Your task to perform on an android device: Empty the shopping cart on newegg. Search for usb-a to usb-b on newegg, select the first entry, and add it to the cart. Image 0: 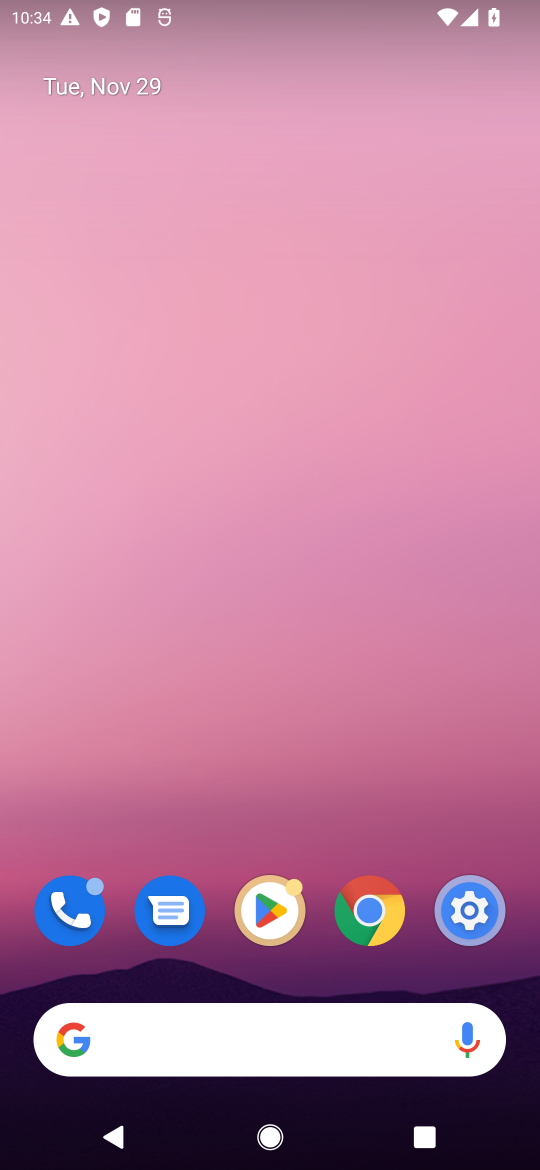
Step 0: click (364, 917)
Your task to perform on an android device: Empty the shopping cart on newegg. Search for usb-a to usb-b on newegg, select the first entry, and add it to the cart. Image 1: 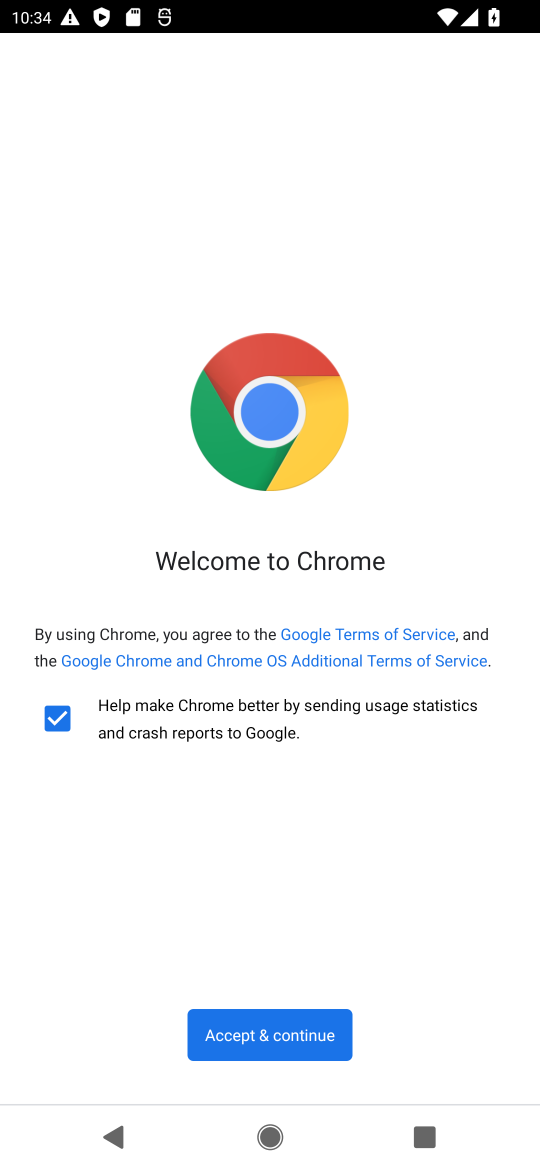
Step 1: click (265, 1041)
Your task to perform on an android device: Empty the shopping cart on newegg. Search for usb-a to usb-b on newegg, select the first entry, and add it to the cart. Image 2: 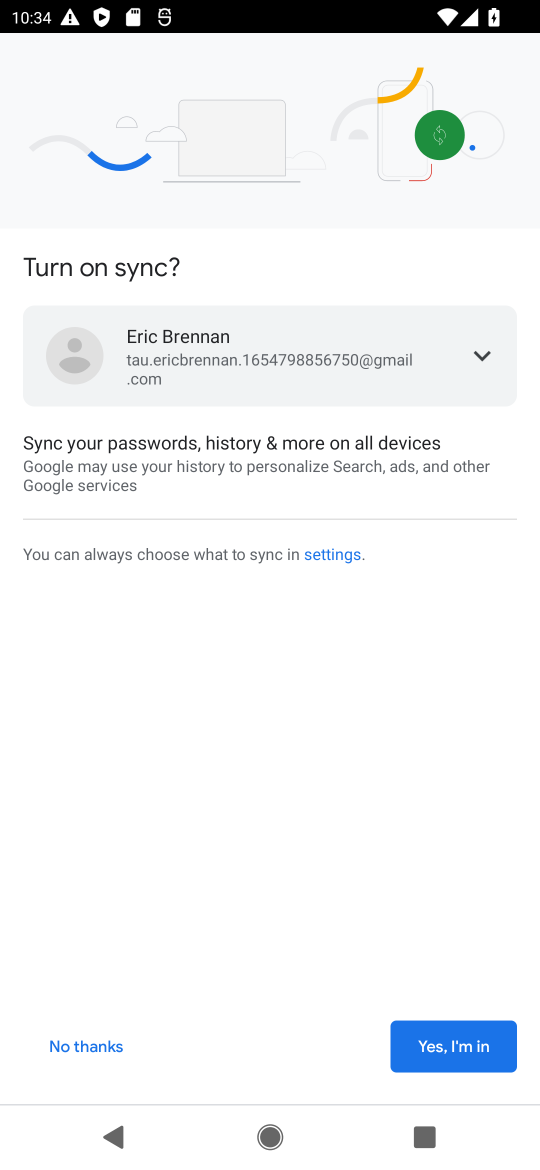
Step 2: click (61, 1049)
Your task to perform on an android device: Empty the shopping cart on newegg. Search for usb-a to usb-b on newegg, select the first entry, and add it to the cart. Image 3: 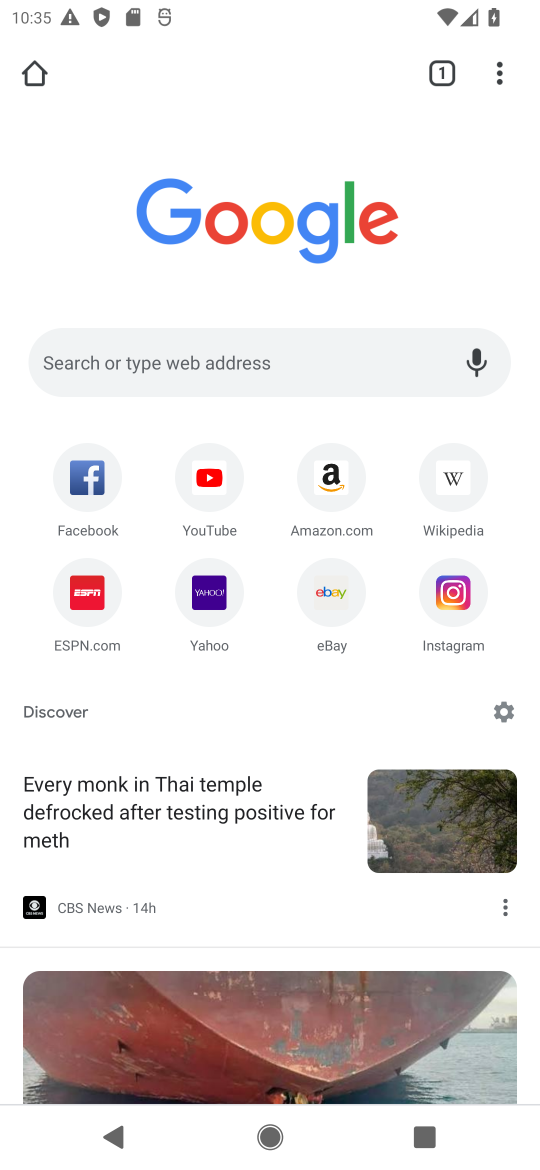
Step 3: click (217, 361)
Your task to perform on an android device: Empty the shopping cart on newegg. Search for usb-a to usb-b on newegg, select the first entry, and add it to the cart. Image 4: 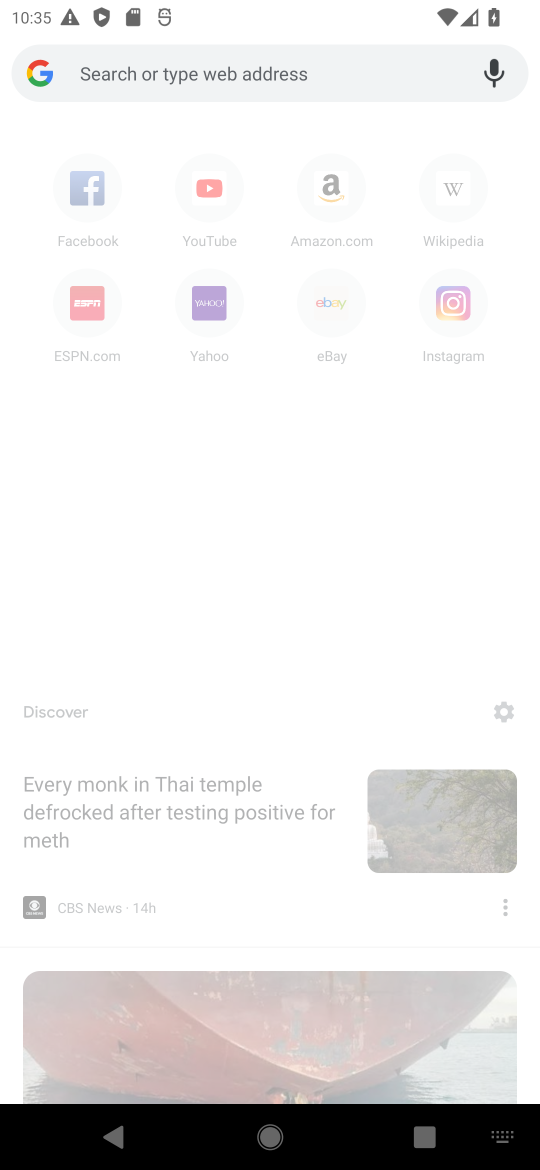
Step 4: type "newegg.com"
Your task to perform on an android device: Empty the shopping cart on newegg. Search for usb-a to usb-b on newegg, select the first entry, and add it to the cart. Image 5: 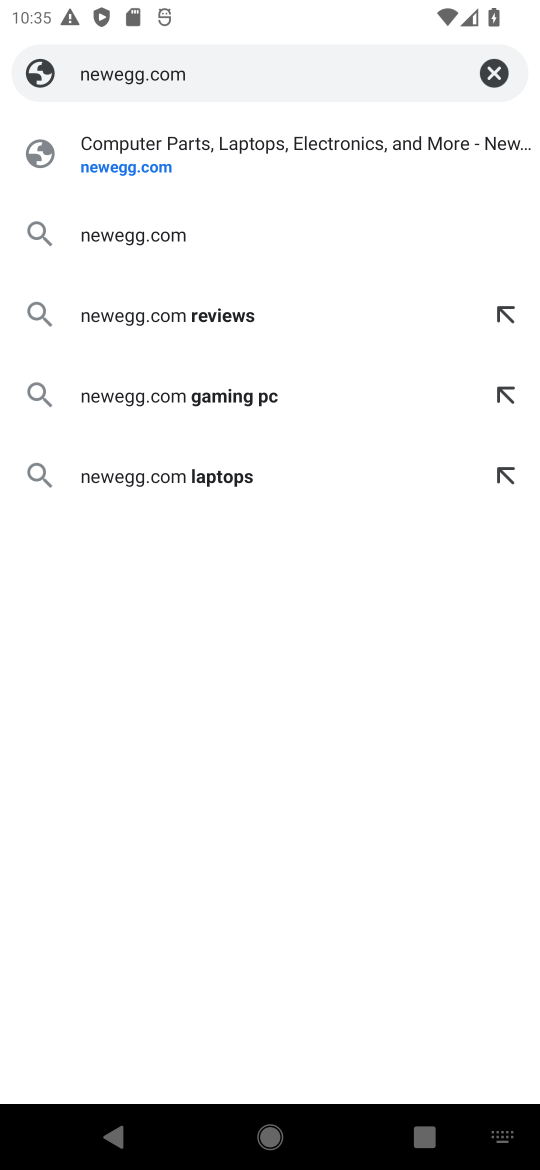
Step 5: click (131, 171)
Your task to perform on an android device: Empty the shopping cart on newegg. Search for usb-a to usb-b on newegg, select the first entry, and add it to the cart. Image 6: 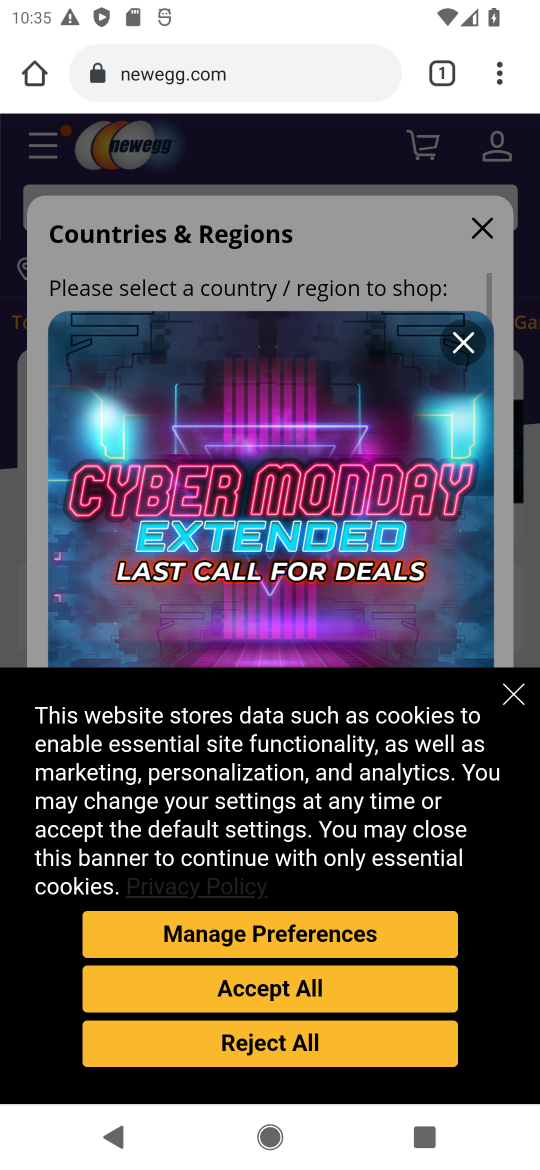
Step 6: click (512, 693)
Your task to perform on an android device: Empty the shopping cart on newegg. Search for usb-a to usb-b on newegg, select the first entry, and add it to the cart. Image 7: 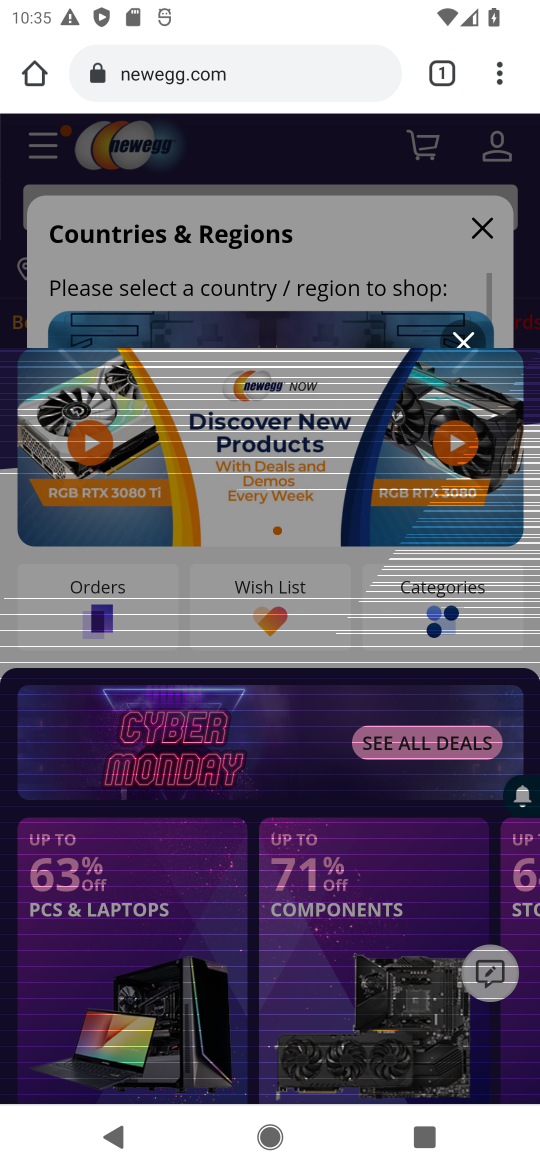
Step 7: click (460, 344)
Your task to perform on an android device: Empty the shopping cart on newegg. Search for usb-a to usb-b on newegg, select the first entry, and add it to the cart. Image 8: 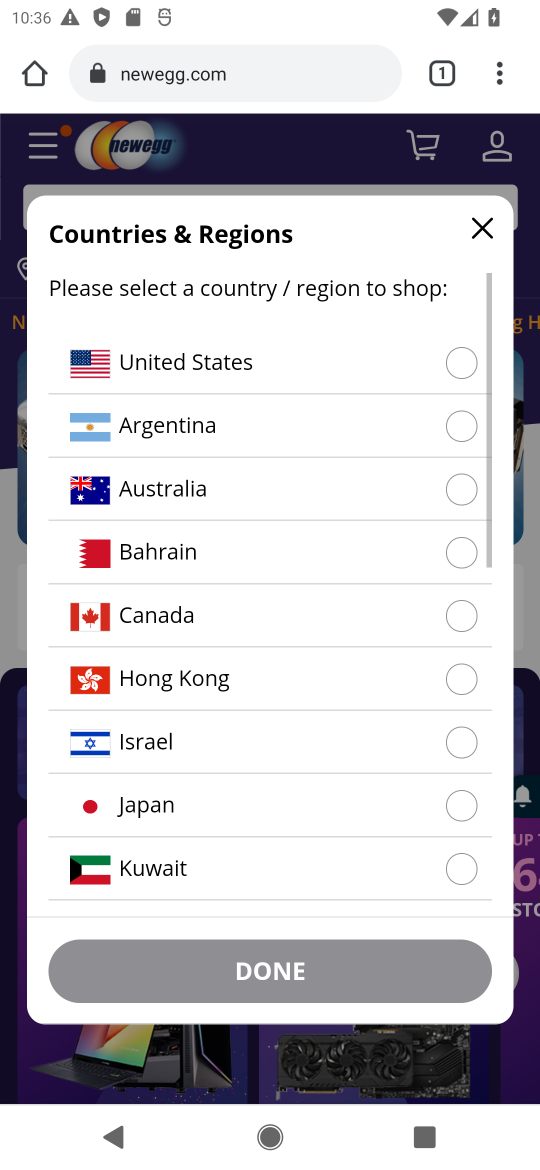
Step 8: click (239, 372)
Your task to perform on an android device: Empty the shopping cart on newegg. Search for usb-a to usb-b on newegg, select the first entry, and add it to the cart. Image 9: 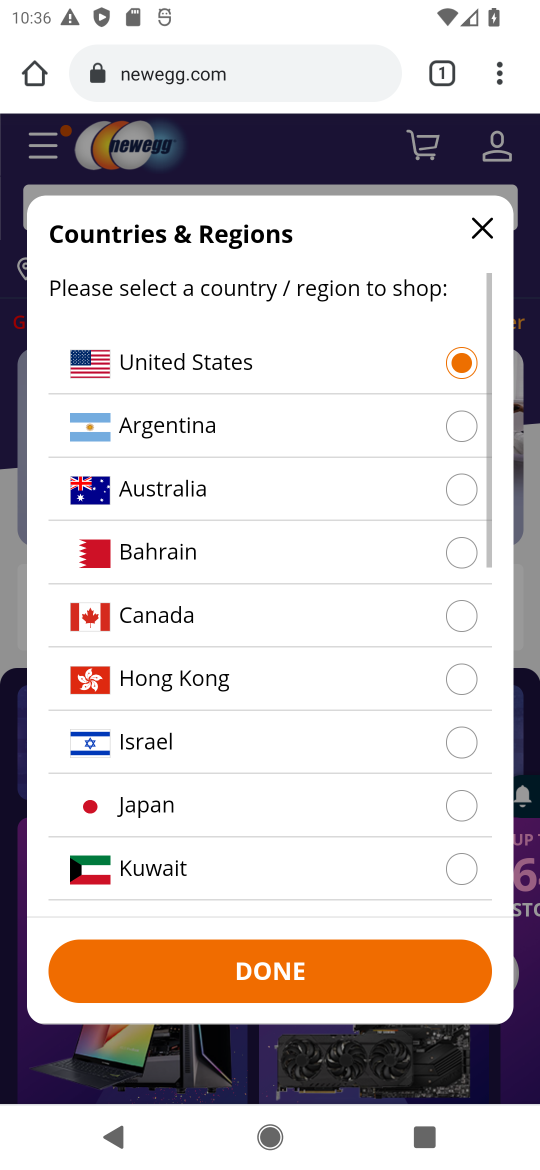
Step 9: click (258, 981)
Your task to perform on an android device: Empty the shopping cart on newegg. Search for usb-a to usb-b on newegg, select the first entry, and add it to the cart. Image 10: 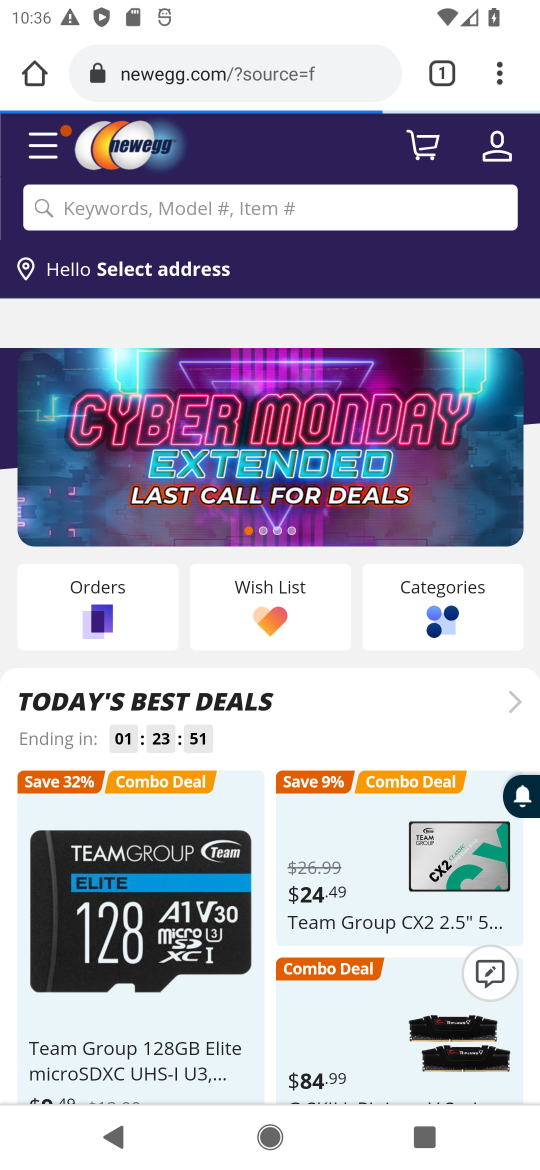
Step 10: click (427, 141)
Your task to perform on an android device: Empty the shopping cart on newegg. Search for usb-a to usb-b on newegg, select the first entry, and add it to the cart. Image 11: 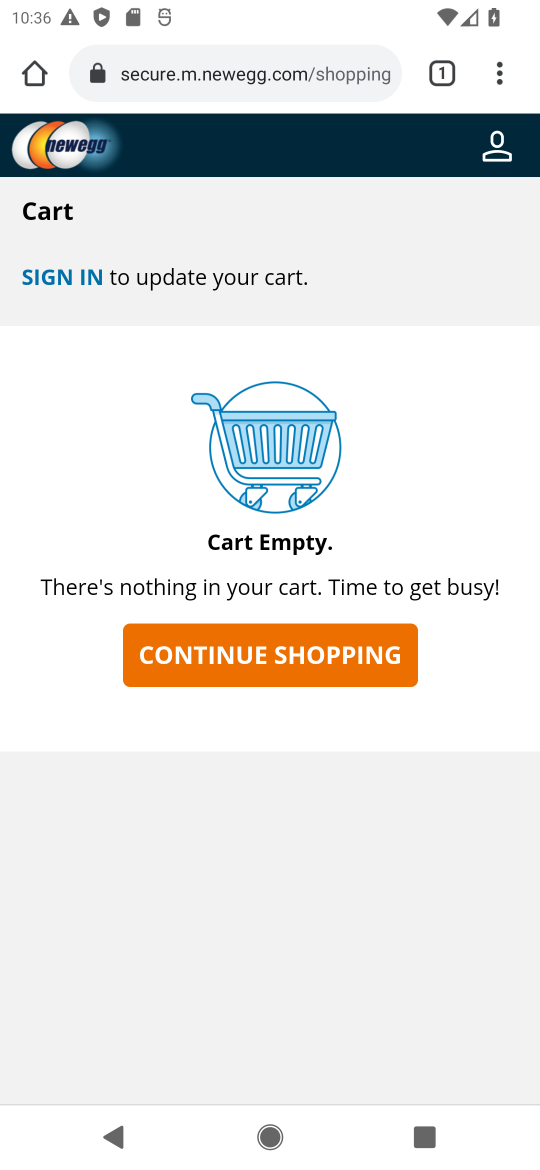
Step 11: click (204, 660)
Your task to perform on an android device: Empty the shopping cart on newegg. Search for usb-a to usb-b on newegg, select the first entry, and add it to the cart. Image 12: 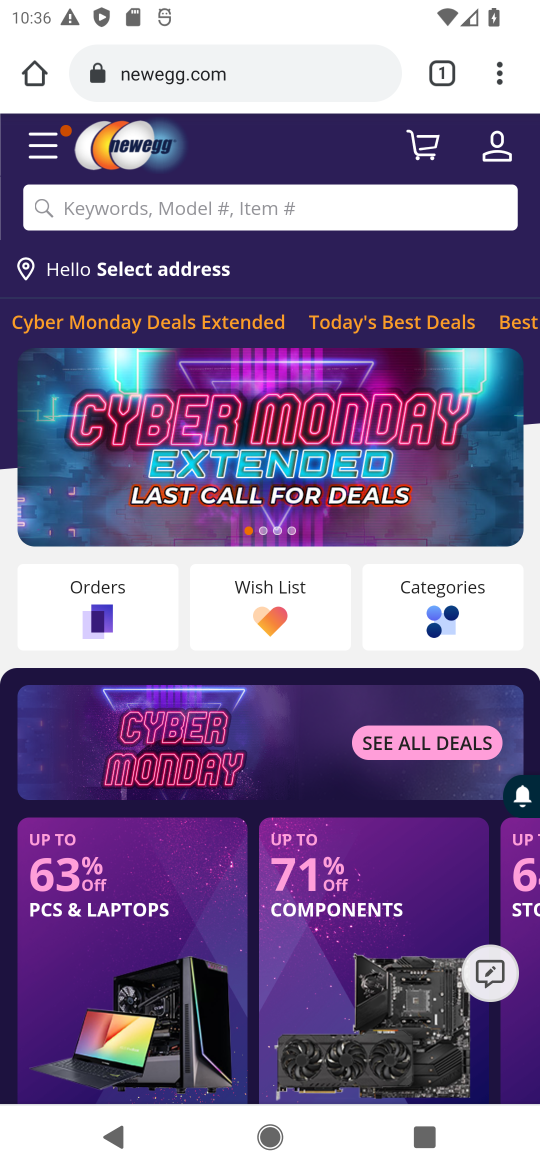
Step 12: click (115, 205)
Your task to perform on an android device: Empty the shopping cart on newegg. Search for usb-a to usb-b on newegg, select the first entry, and add it to the cart. Image 13: 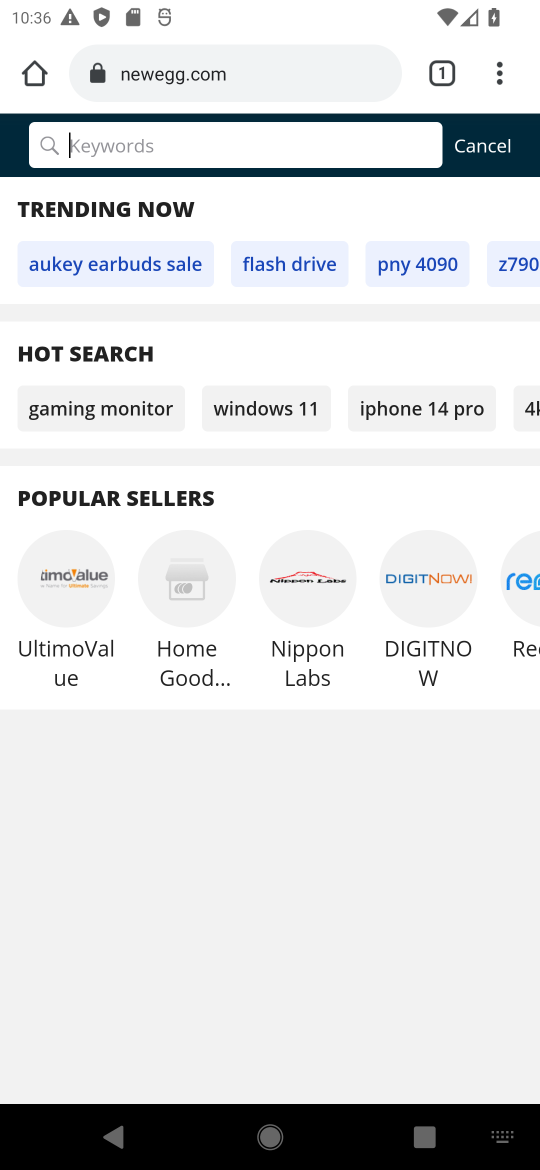
Step 13: type "usb-a to usb-b"
Your task to perform on an android device: Empty the shopping cart on newegg. Search for usb-a to usb-b on newegg, select the first entry, and add it to the cart. Image 14: 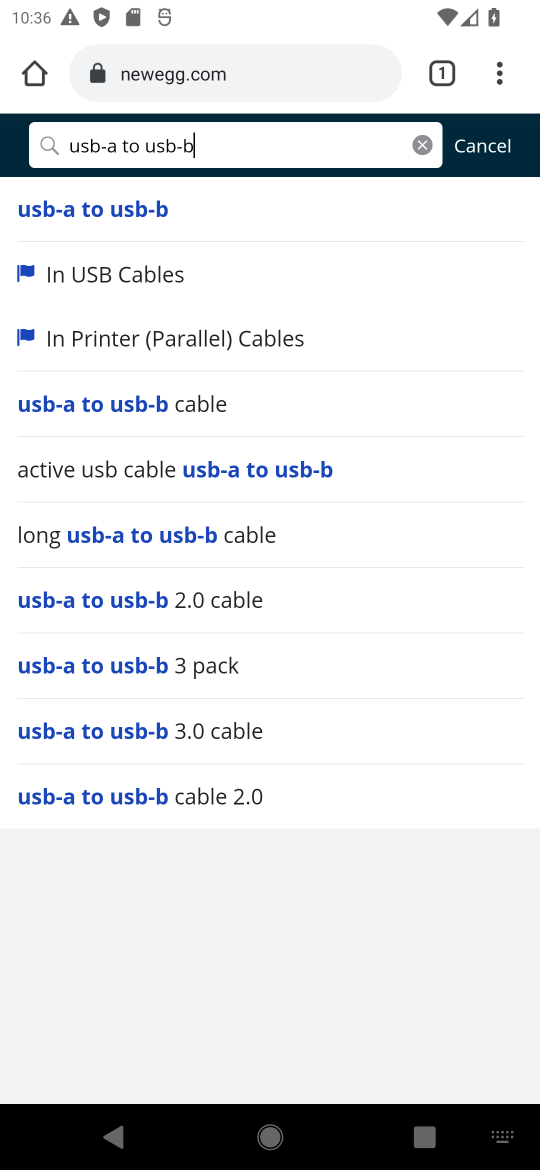
Step 14: click (94, 218)
Your task to perform on an android device: Empty the shopping cart on newegg. Search for usb-a to usb-b on newegg, select the first entry, and add it to the cart. Image 15: 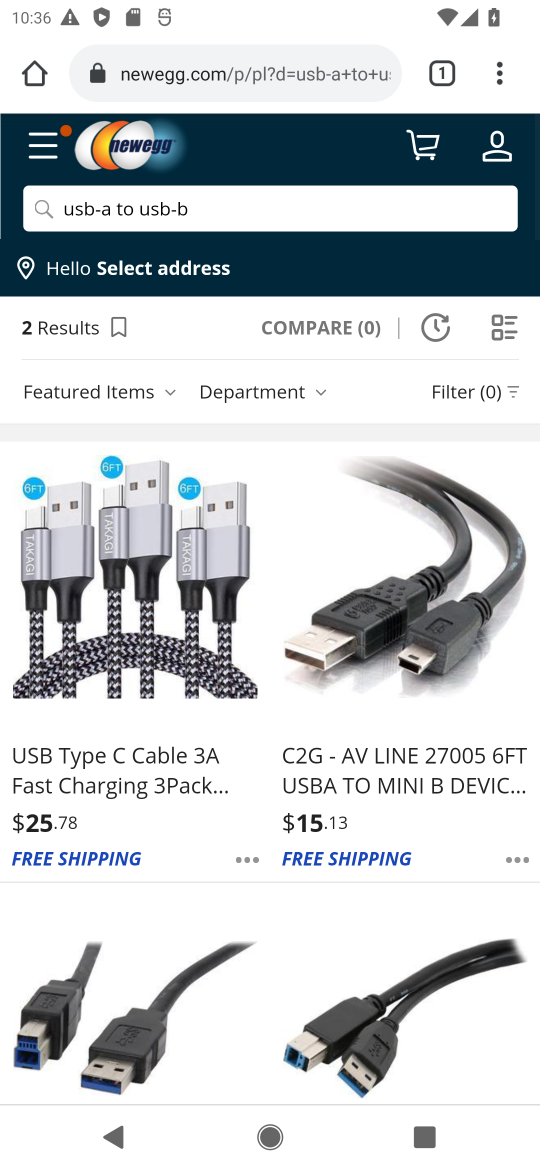
Step 15: drag from (123, 746) to (129, 625)
Your task to perform on an android device: Empty the shopping cart on newegg. Search for usb-a to usb-b on newegg, select the first entry, and add it to the cart. Image 16: 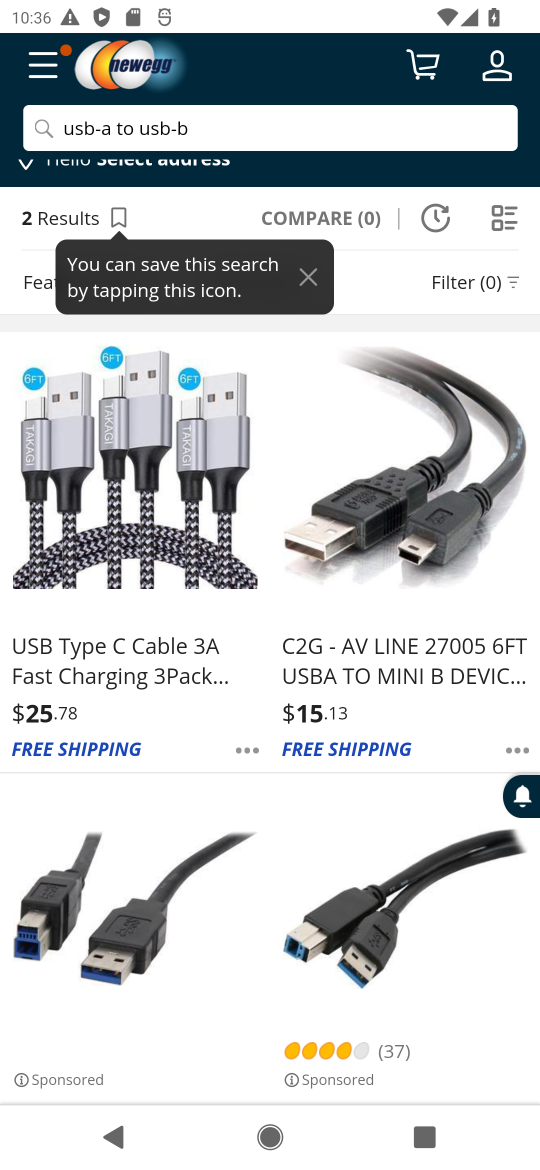
Step 16: click (178, 550)
Your task to perform on an android device: Empty the shopping cart on newegg. Search for usb-a to usb-b on newegg, select the first entry, and add it to the cart. Image 17: 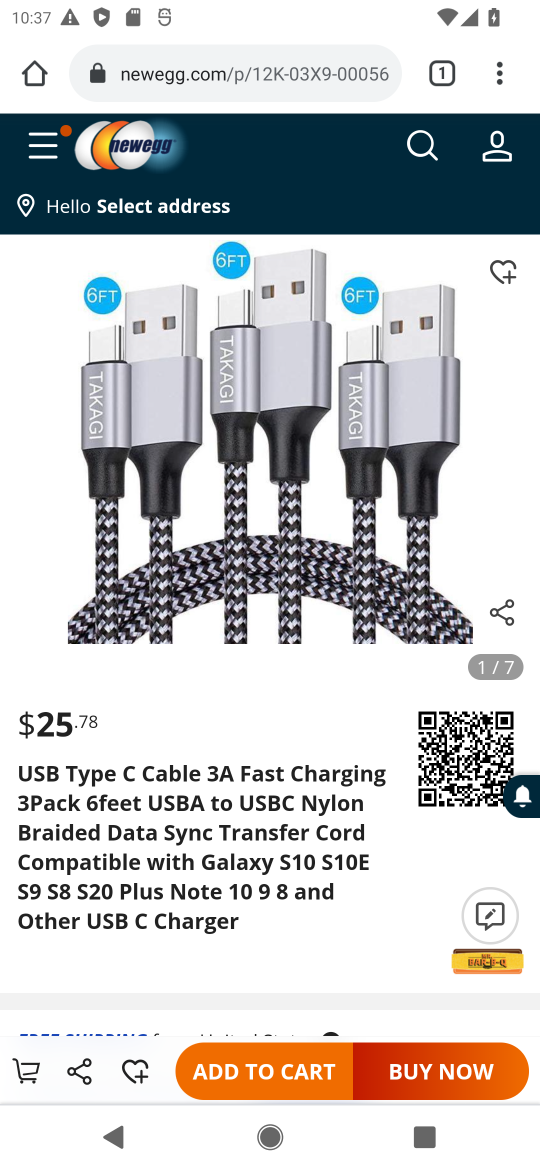
Step 17: click (227, 1075)
Your task to perform on an android device: Empty the shopping cart on newegg. Search for usb-a to usb-b on newegg, select the first entry, and add it to the cart. Image 18: 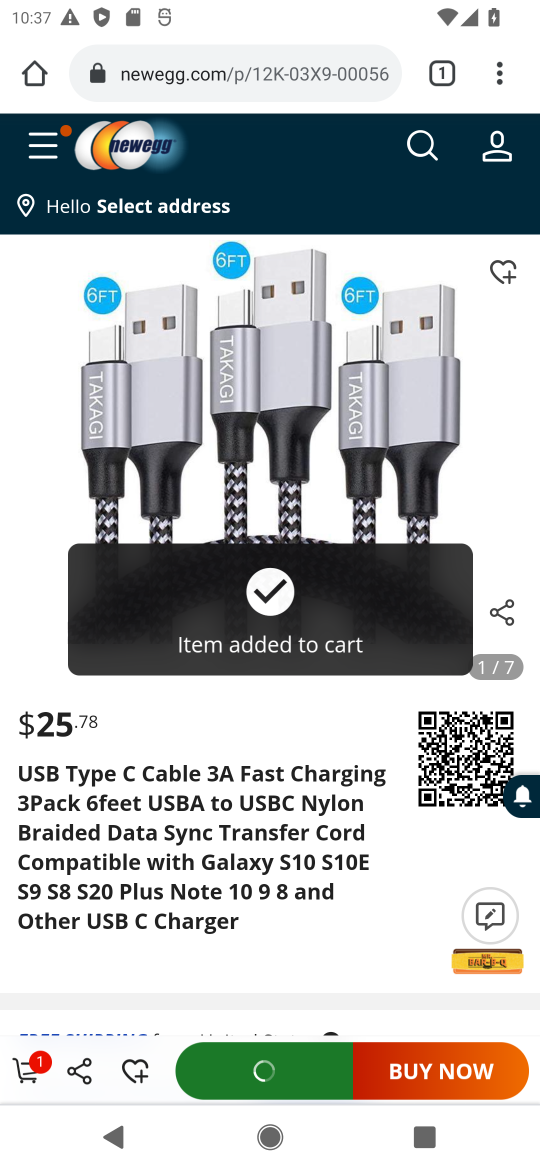
Step 18: task complete